Your task to perform on an android device: Search for the best selling books Image 0: 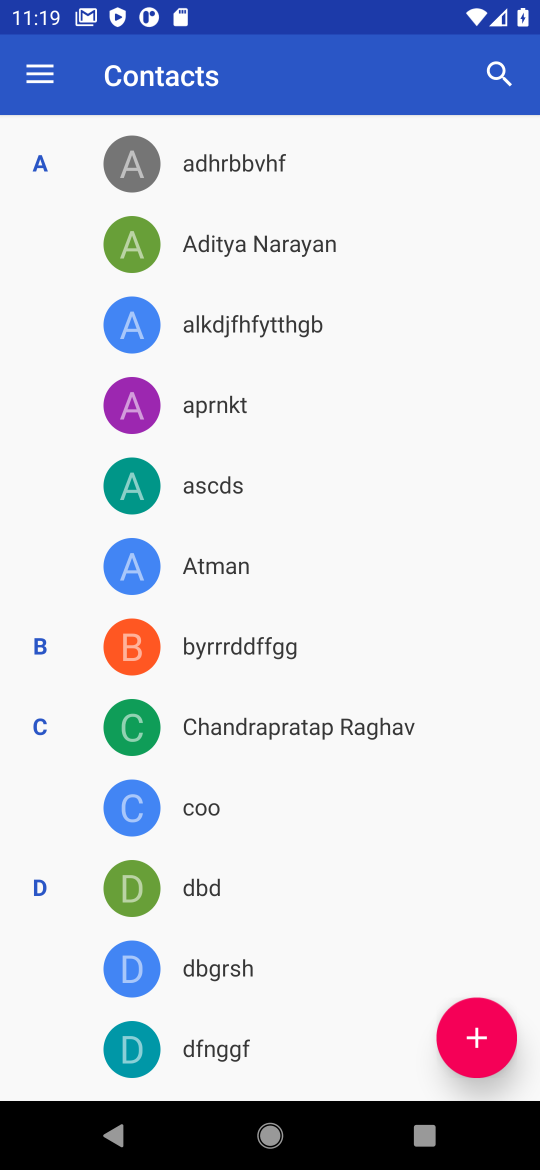
Step 0: press back button
Your task to perform on an android device: Search for the best selling books Image 1: 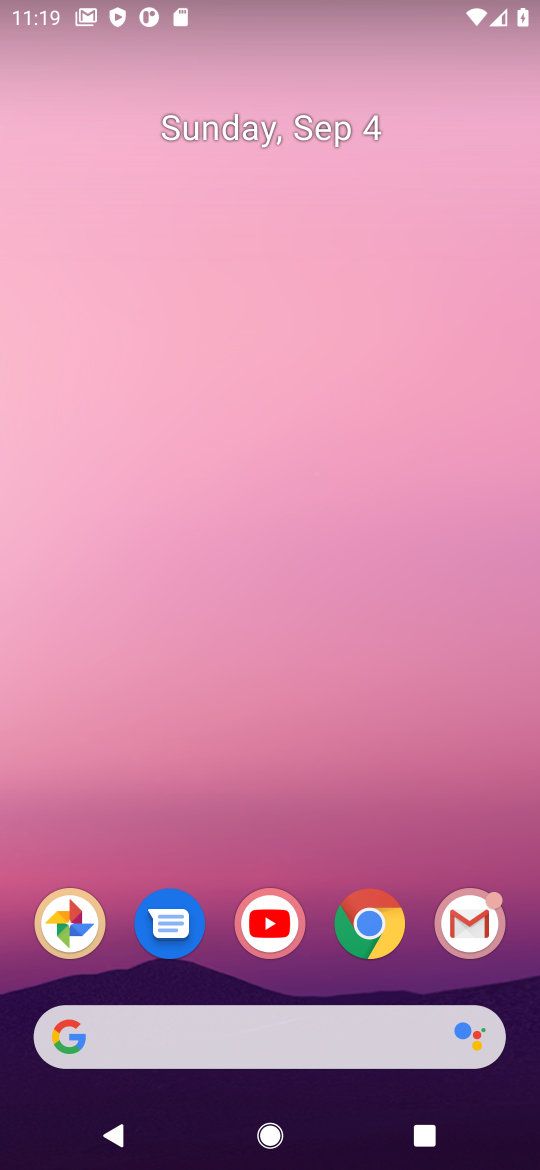
Step 1: click (367, 903)
Your task to perform on an android device: Search for the best selling books Image 2: 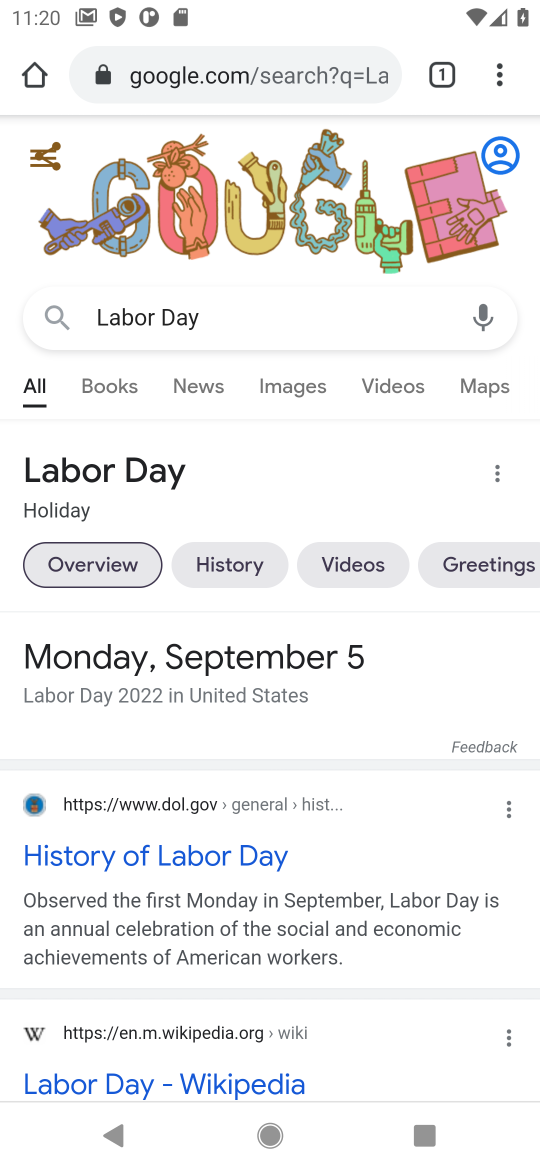
Step 2: click (232, 90)
Your task to perform on an android device: Search for the best selling books Image 3: 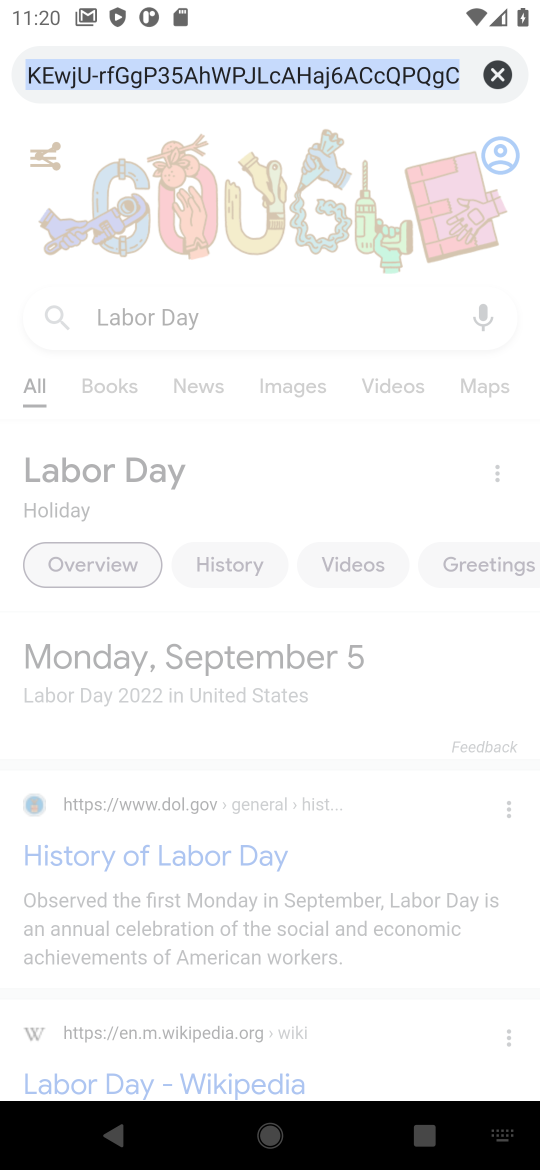
Step 3: click (497, 62)
Your task to perform on an android device: Search for the best selling books Image 4: 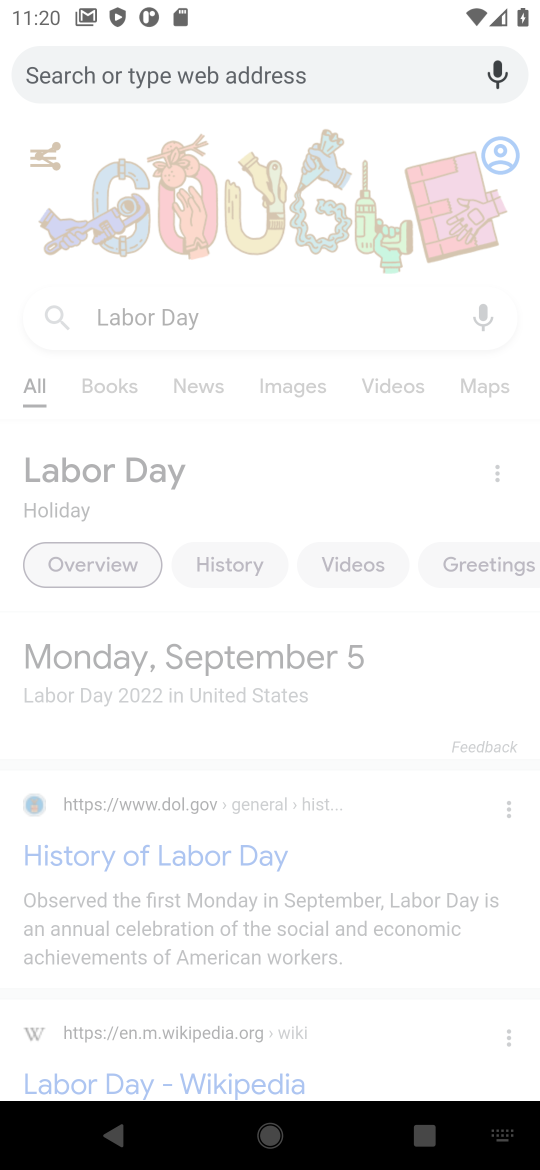
Step 4: type "the best selling books"
Your task to perform on an android device: Search for the best selling books Image 5: 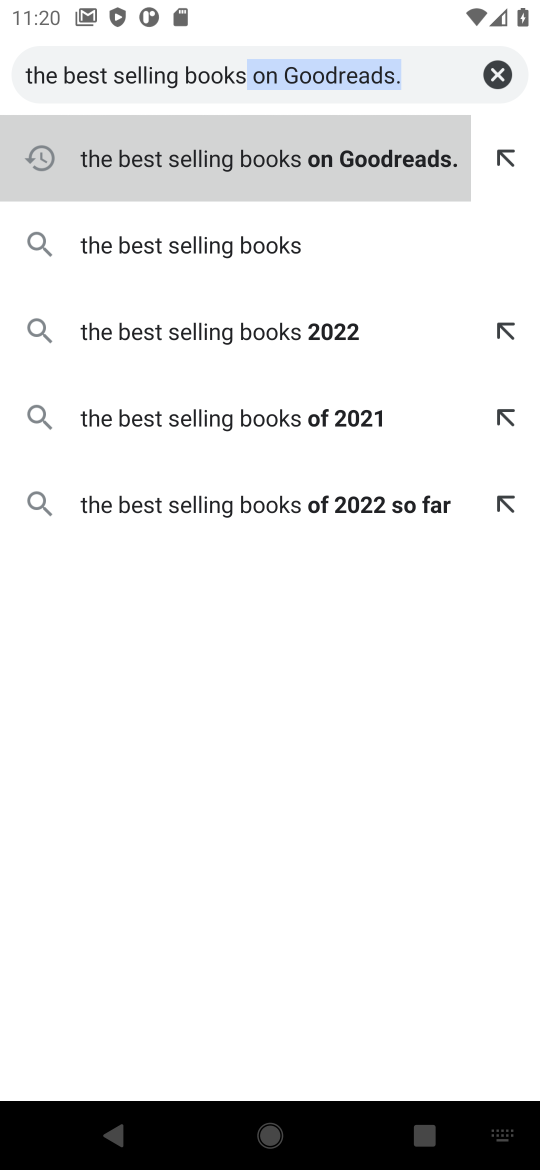
Step 5: click (206, 262)
Your task to perform on an android device: Search for the best selling books Image 6: 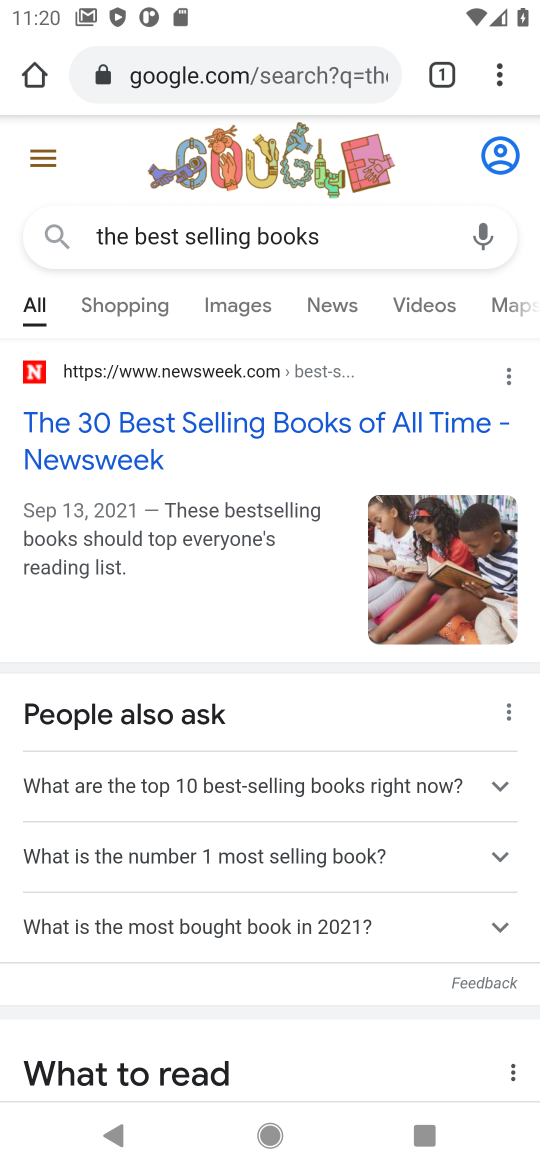
Step 6: task complete